Your task to perform on an android device: Find coffee shops on Maps Image 0: 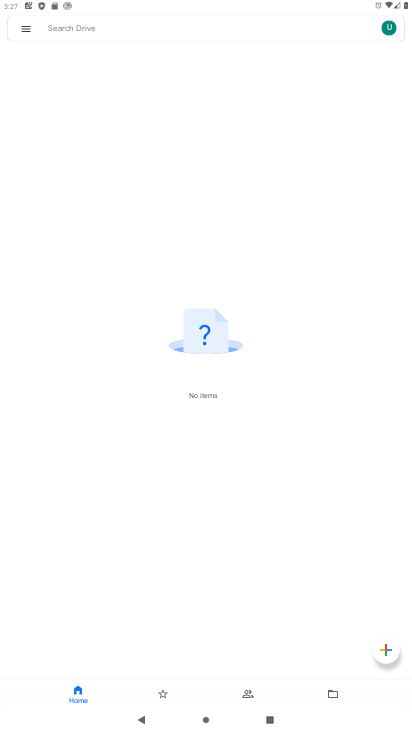
Step 0: press home button
Your task to perform on an android device: Find coffee shops on Maps Image 1: 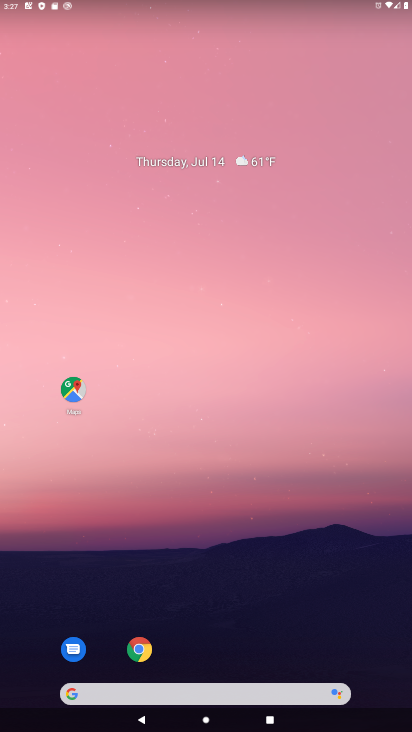
Step 1: drag from (185, 665) to (181, 202)
Your task to perform on an android device: Find coffee shops on Maps Image 2: 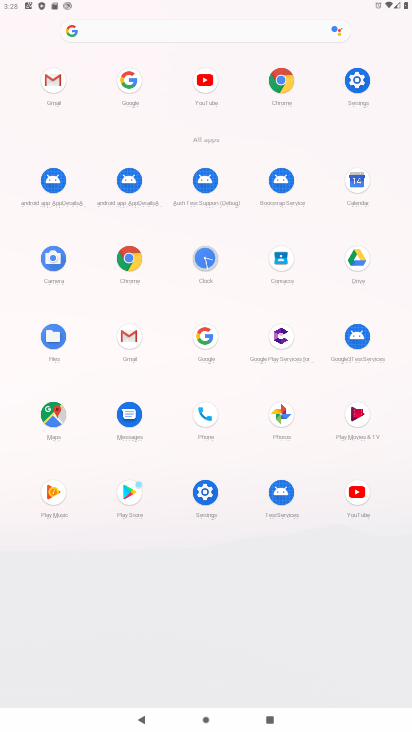
Step 2: click (63, 408)
Your task to perform on an android device: Find coffee shops on Maps Image 3: 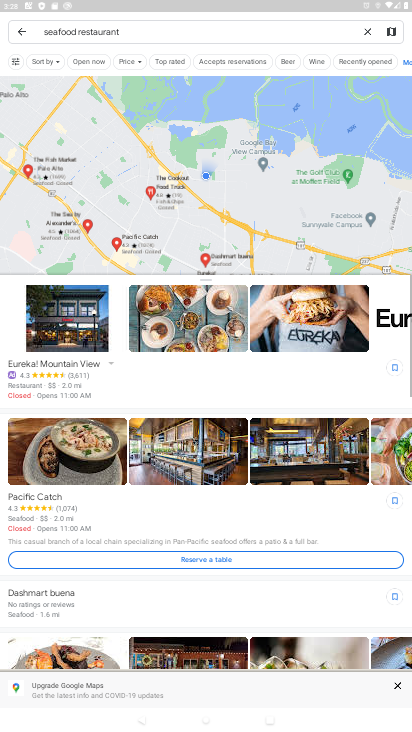
Step 3: click (153, 29)
Your task to perform on an android device: Find coffee shops on Maps Image 4: 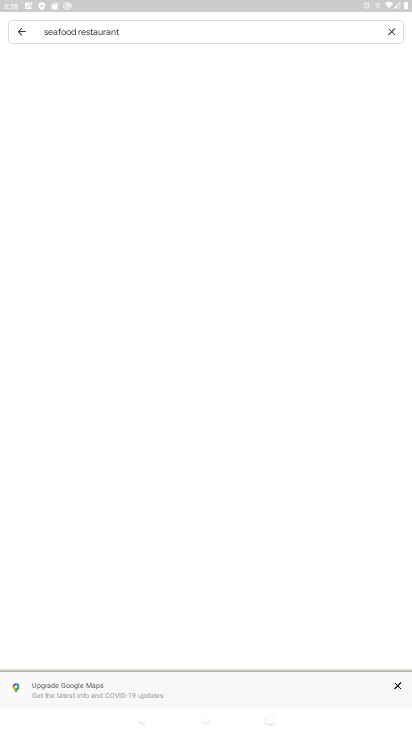
Step 4: click (362, 34)
Your task to perform on an android device: Find coffee shops on Maps Image 5: 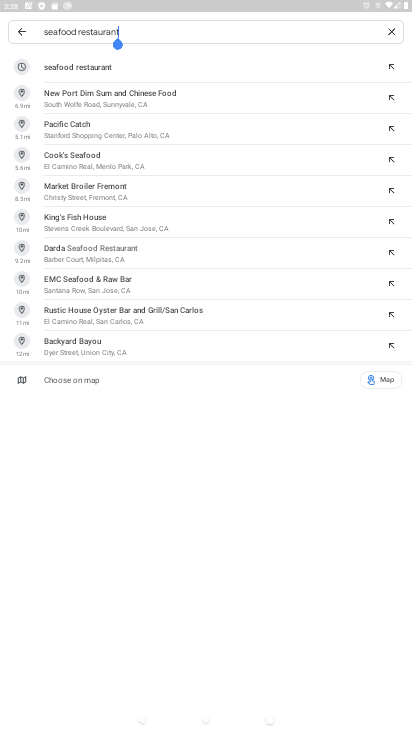
Step 5: click (391, 32)
Your task to perform on an android device: Find coffee shops on Maps Image 6: 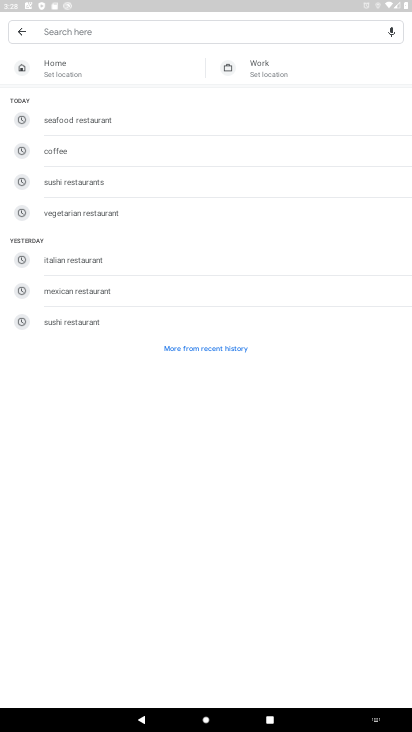
Step 6: click (69, 157)
Your task to perform on an android device: Find coffee shops on Maps Image 7: 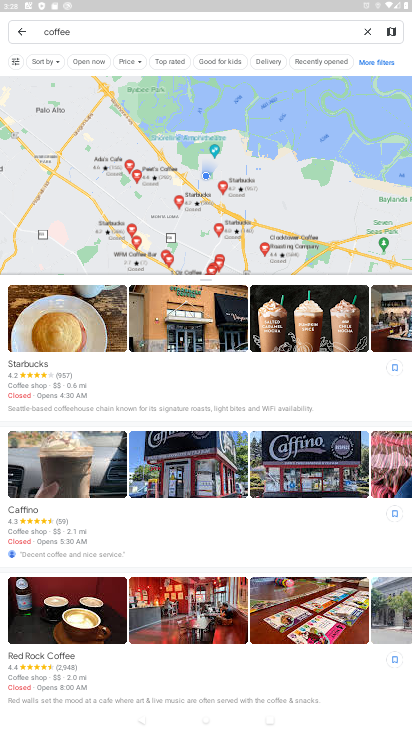
Step 7: task complete